Your task to perform on an android device: turn on wifi Image 0: 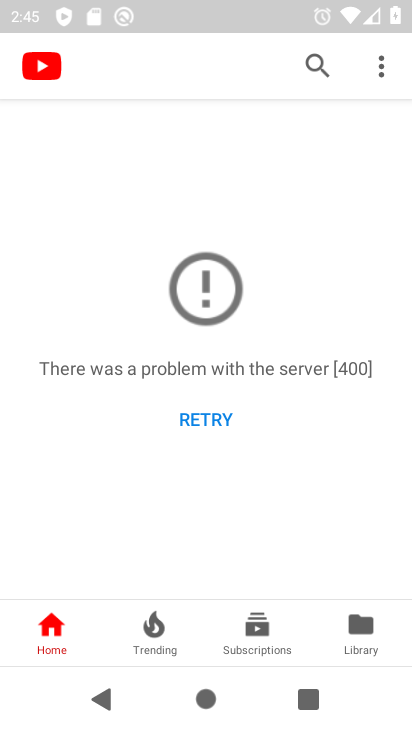
Step 0: press home button
Your task to perform on an android device: turn on wifi Image 1: 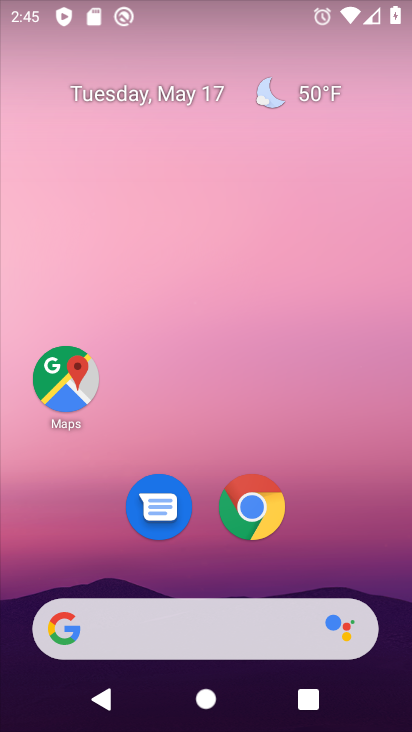
Step 1: drag from (329, 433) to (223, 17)
Your task to perform on an android device: turn on wifi Image 2: 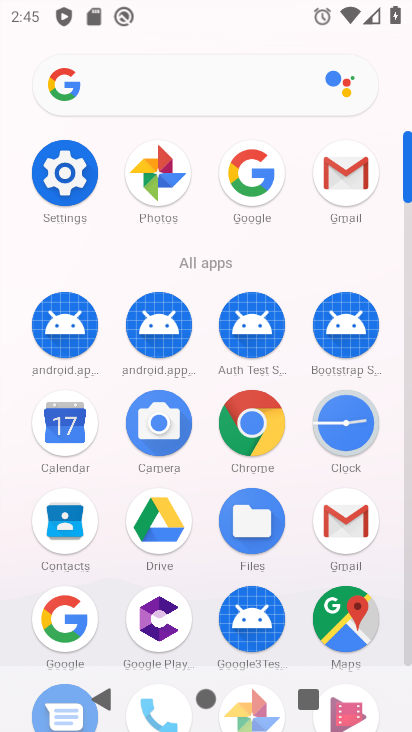
Step 2: click (80, 194)
Your task to perform on an android device: turn on wifi Image 3: 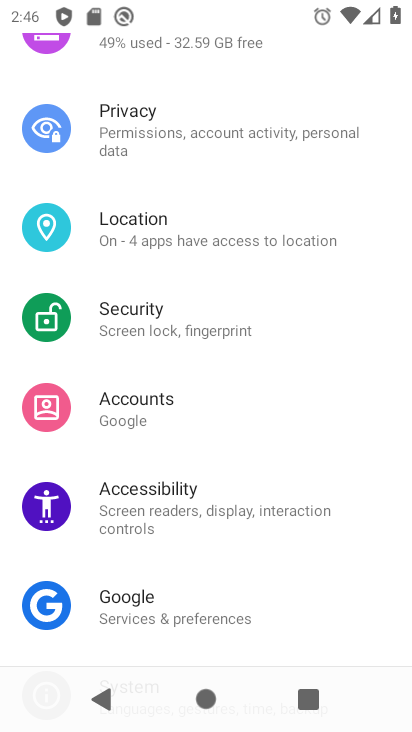
Step 3: drag from (257, 173) to (227, 646)
Your task to perform on an android device: turn on wifi Image 4: 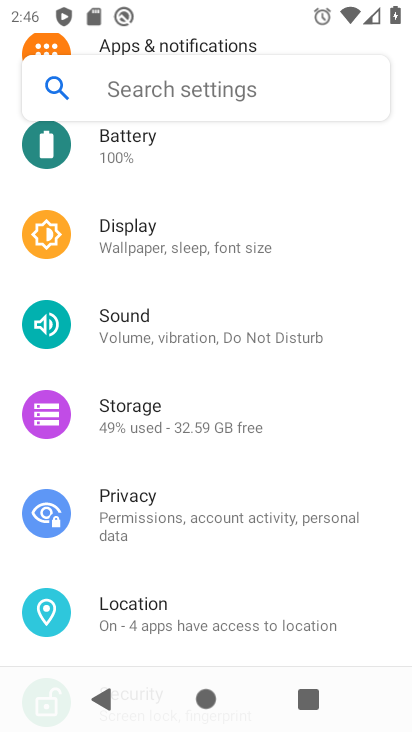
Step 4: drag from (238, 186) to (231, 580)
Your task to perform on an android device: turn on wifi Image 5: 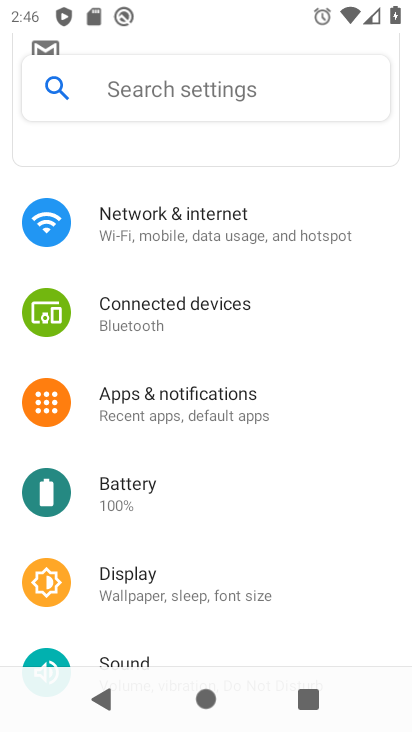
Step 5: drag from (265, 276) to (272, 611)
Your task to perform on an android device: turn on wifi Image 6: 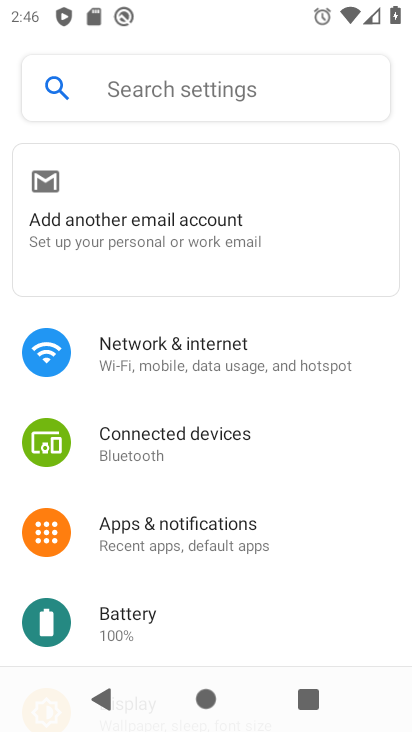
Step 6: drag from (237, 247) to (222, 598)
Your task to perform on an android device: turn on wifi Image 7: 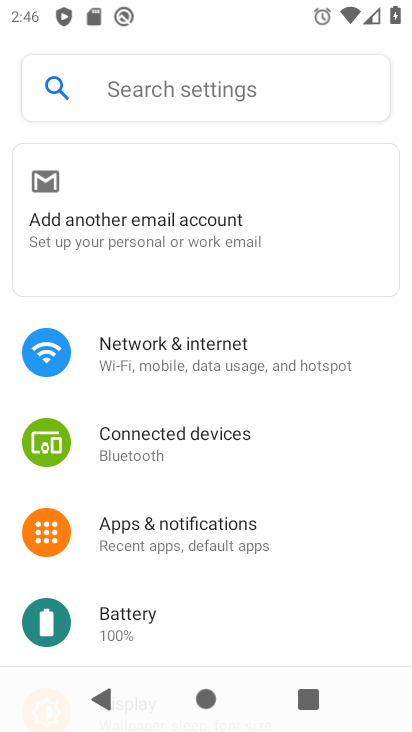
Step 7: click (212, 353)
Your task to perform on an android device: turn on wifi Image 8: 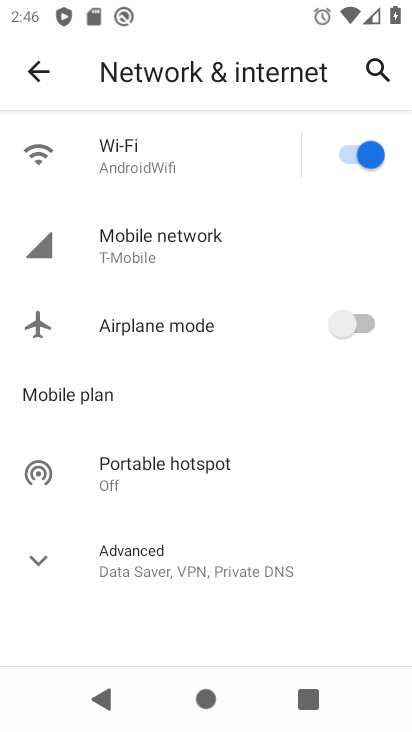
Step 8: task complete